Your task to perform on an android device: change the clock display to analog Image 0: 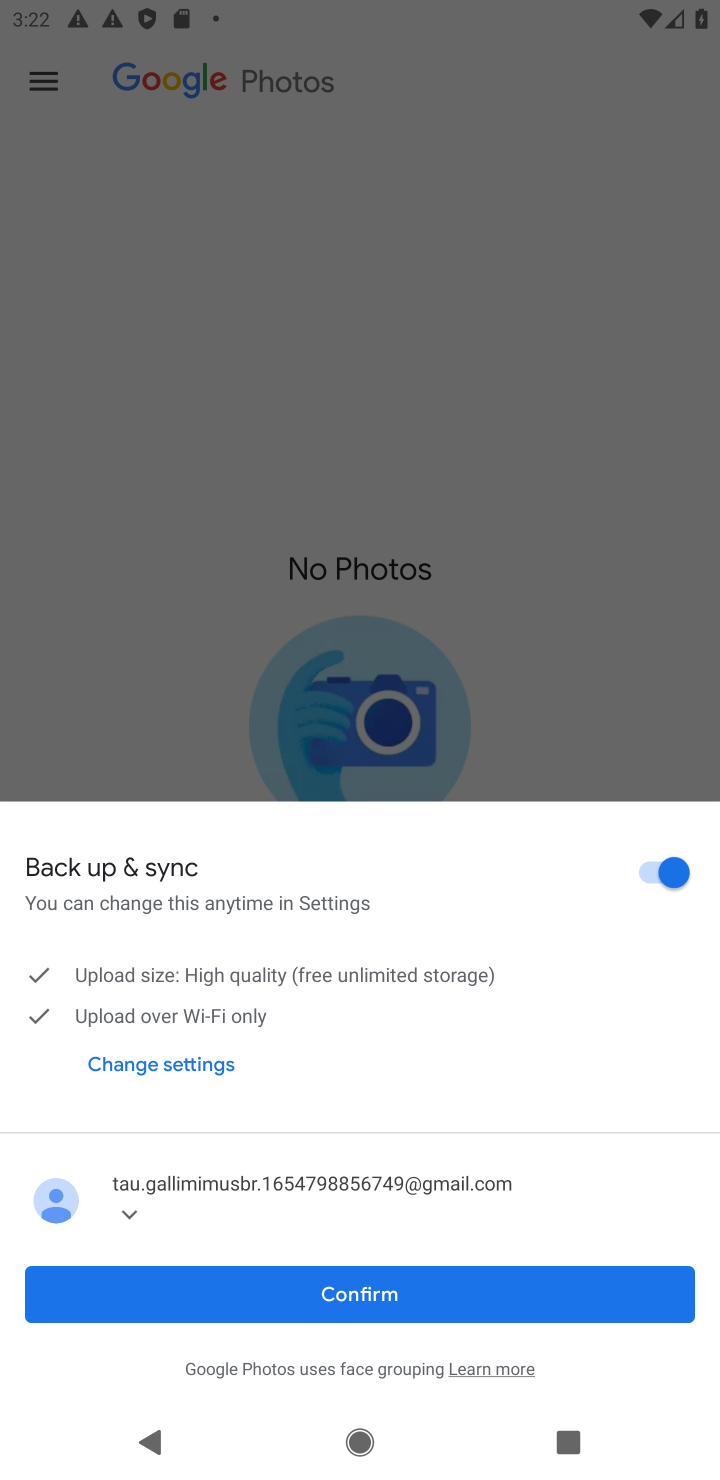
Step 0: press home button
Your task to perform on an android device: change the clock display to analog Image 1: 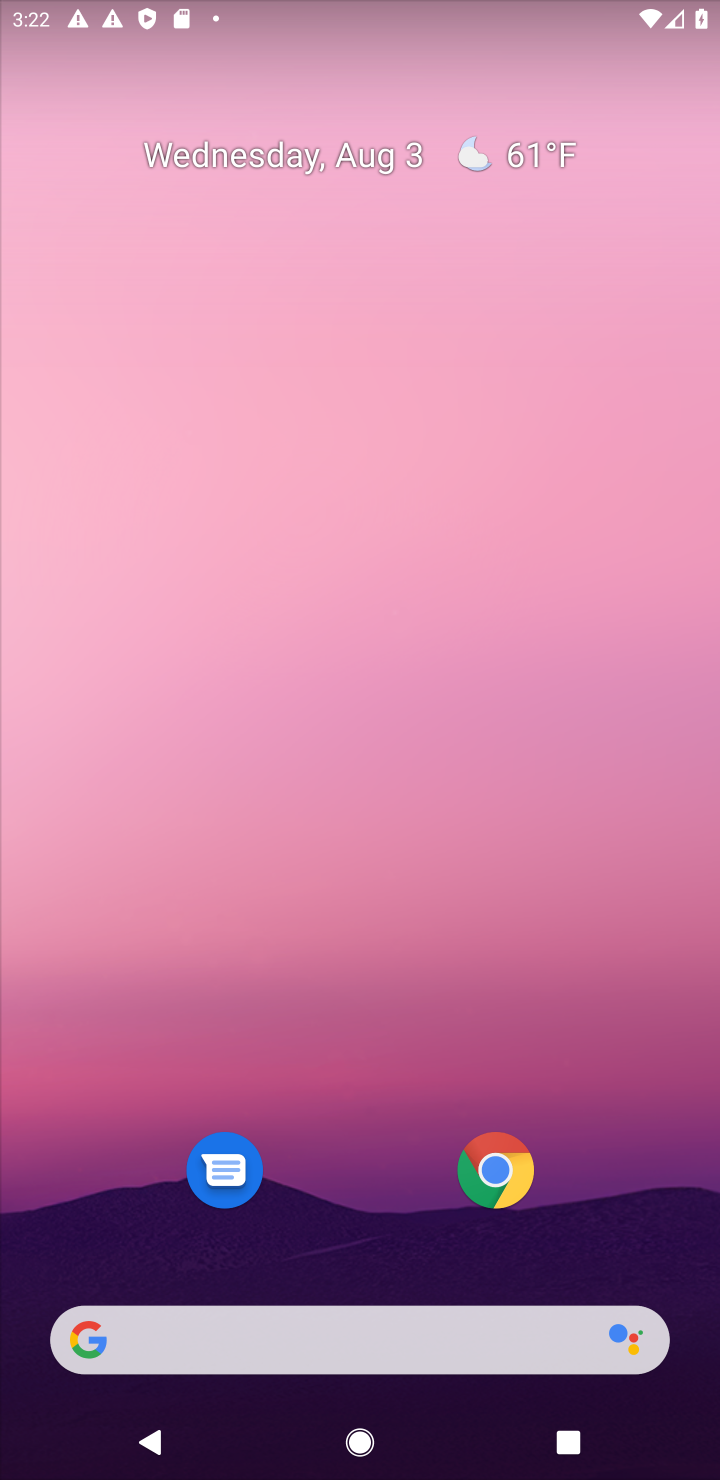
Step 1: drag from (370, 1265) to (279, 247)
Your task to perform on an android device: change the clock display to analog Image 2: 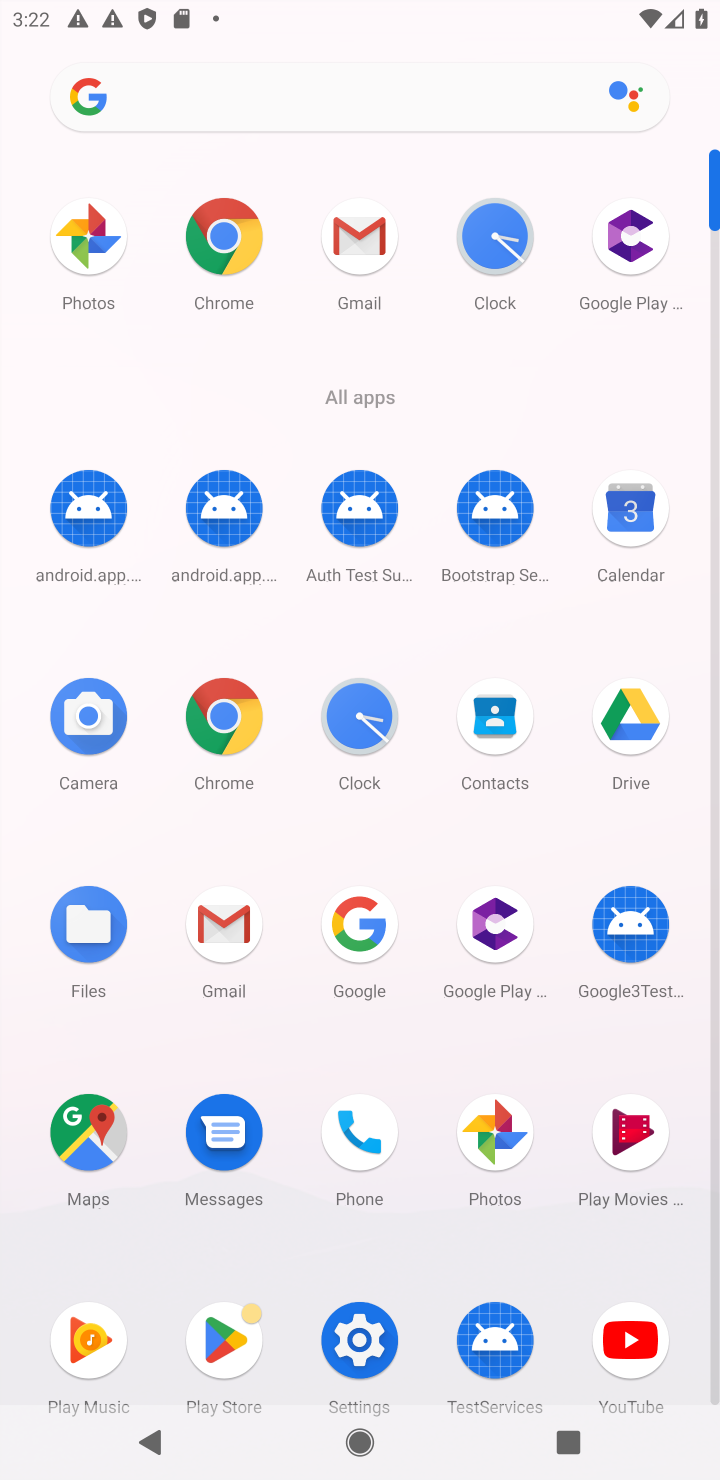
Step 2: click (497, 256)
Your task to perform on an android device: change the clock display to analog Image 3: 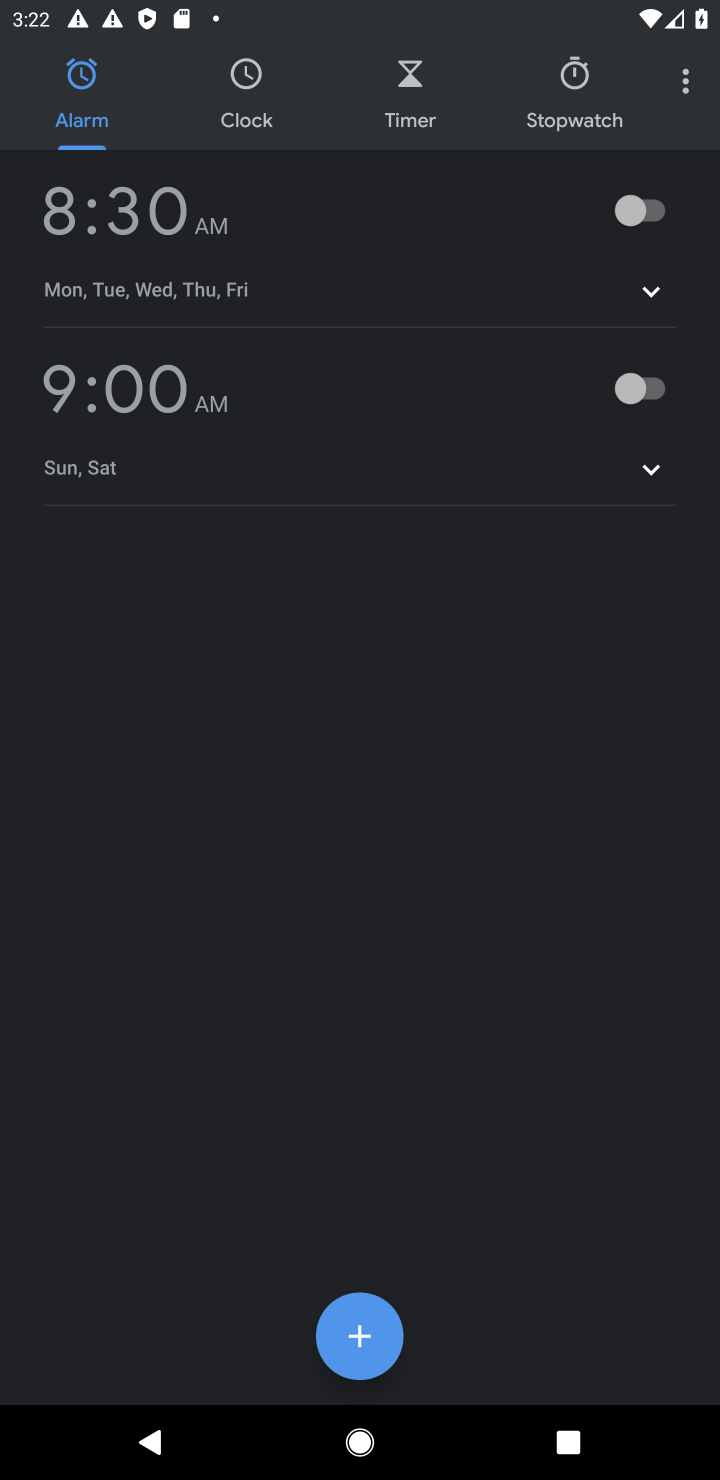
Step 3: click (698, 99)
Your task to perform on an android device: change the clock display to analog Image 4: 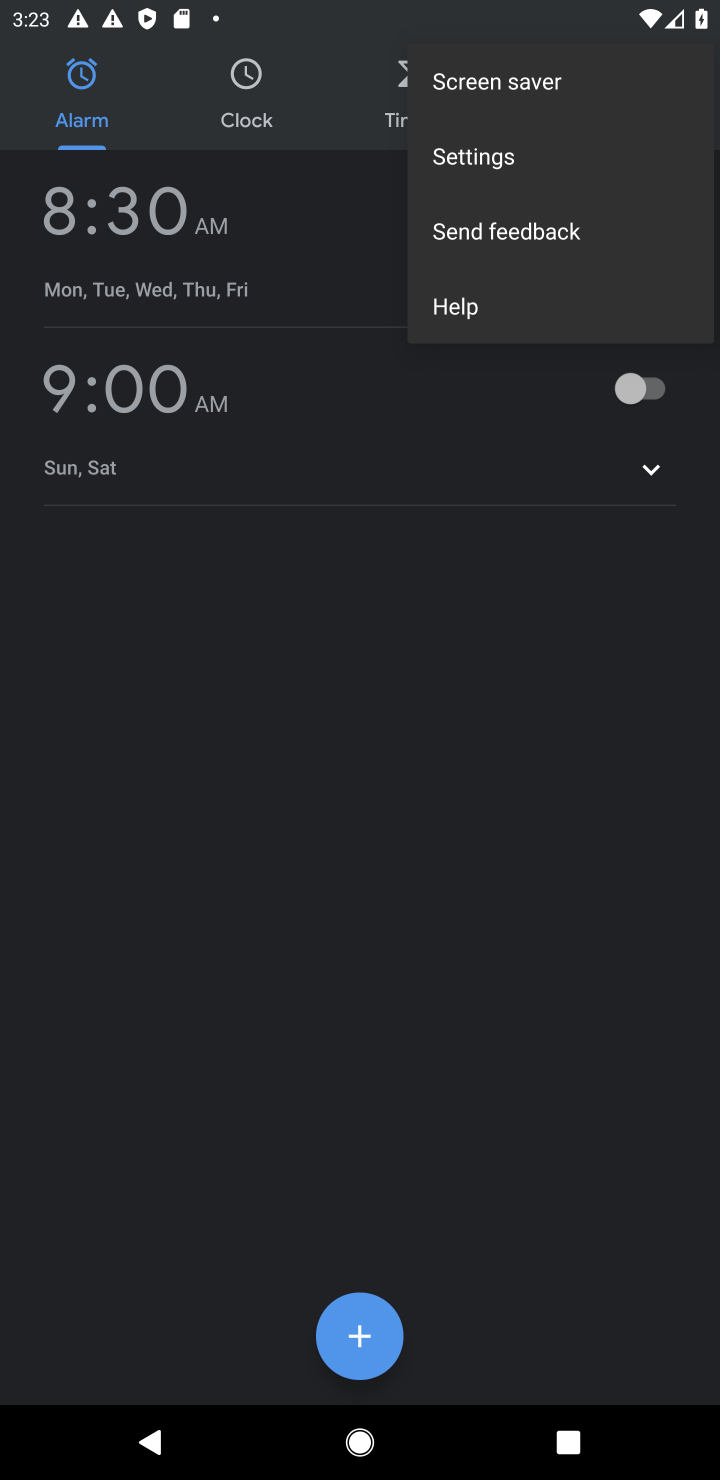
Step 4: click (596, 157)
Your task to perform on an android device: change the clock display to analog Image 5: 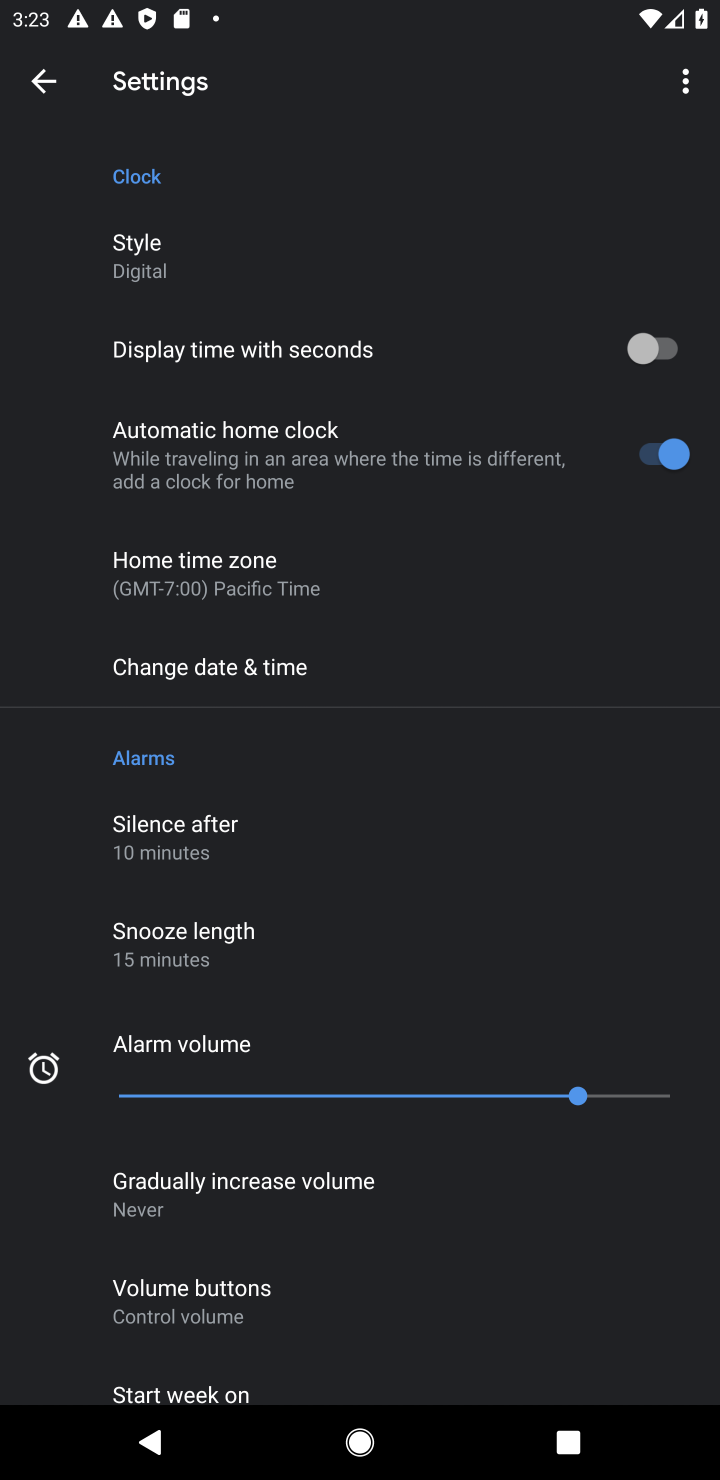
Step 5: click (170, 285)
Your task to perform on an android device: change the clock display to analog Image 6: 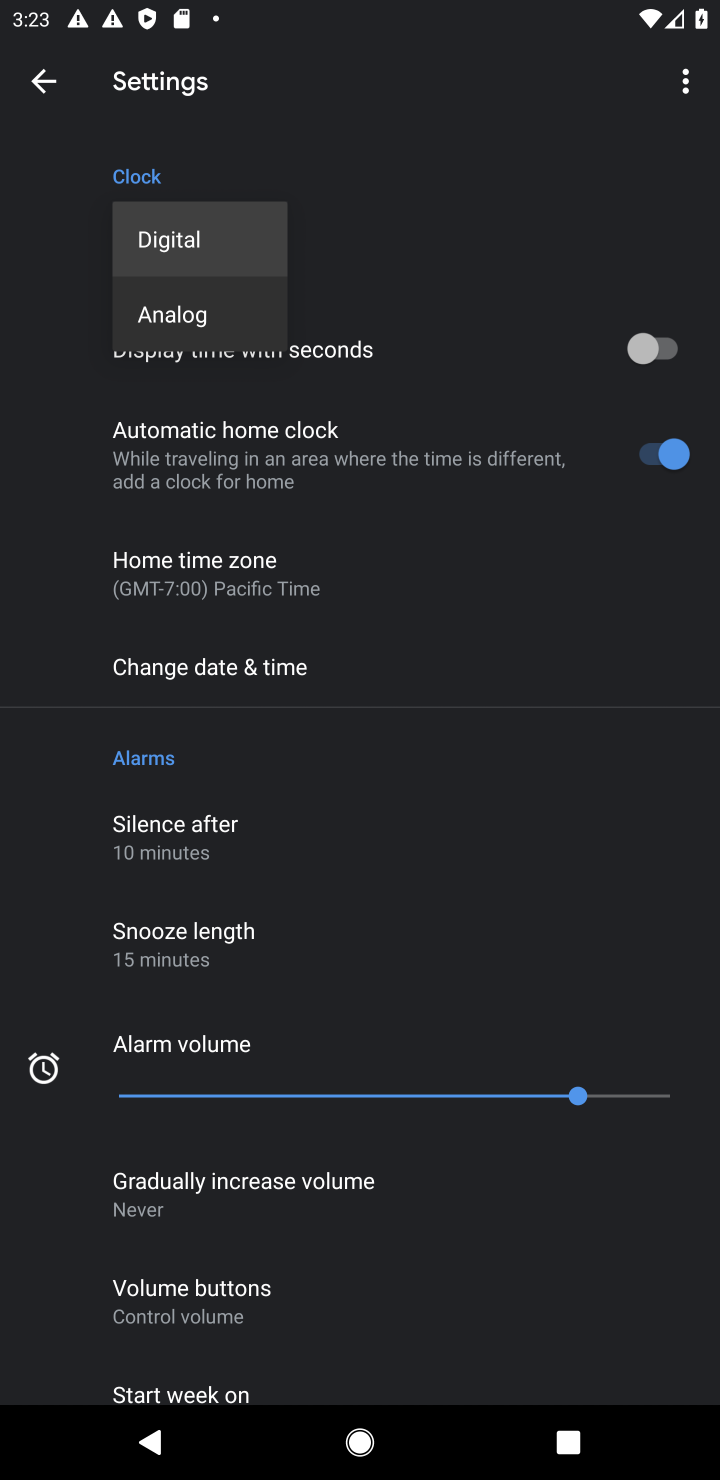
Step 6: click (190, 330)
Your task to perform on an android device: change the clock display to analog Image 7: 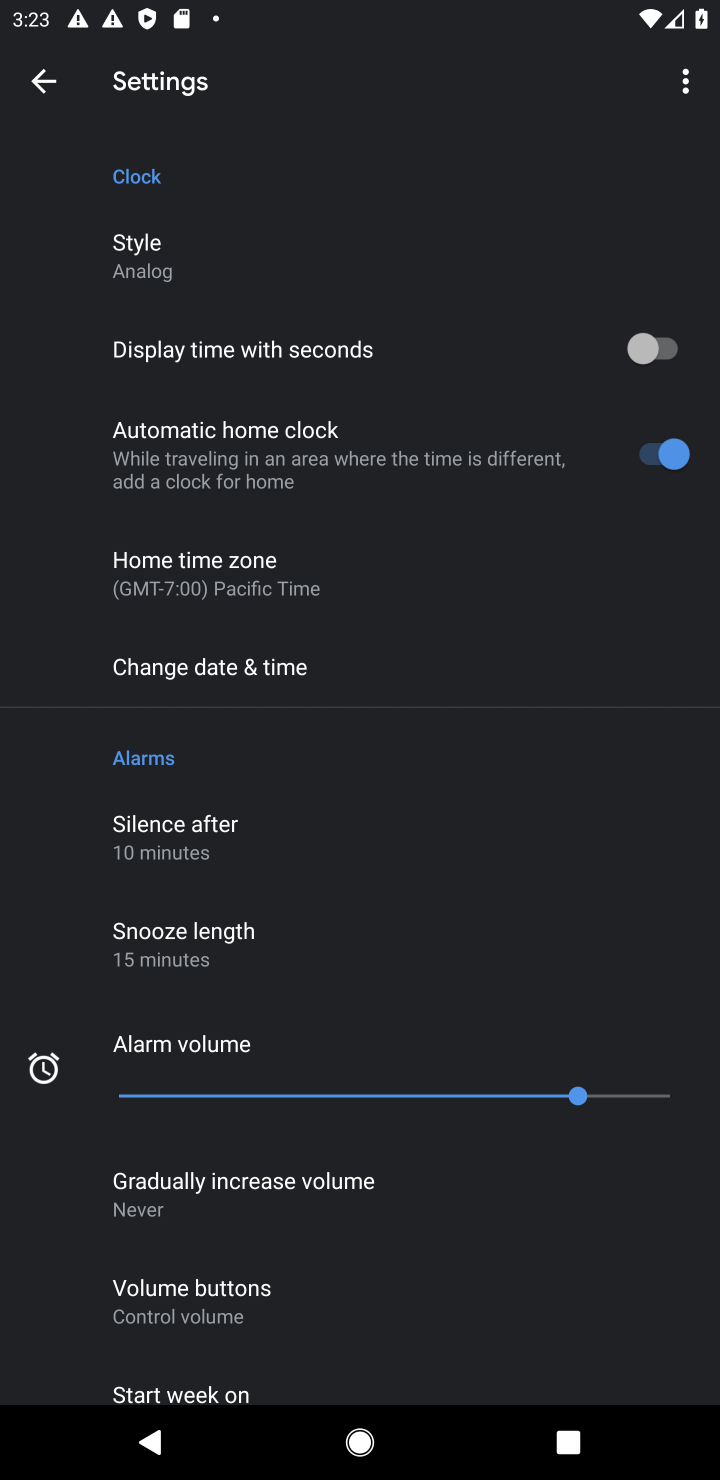
Step 7: task complete